Your task to perform on an android device: turn on location history Image 0: 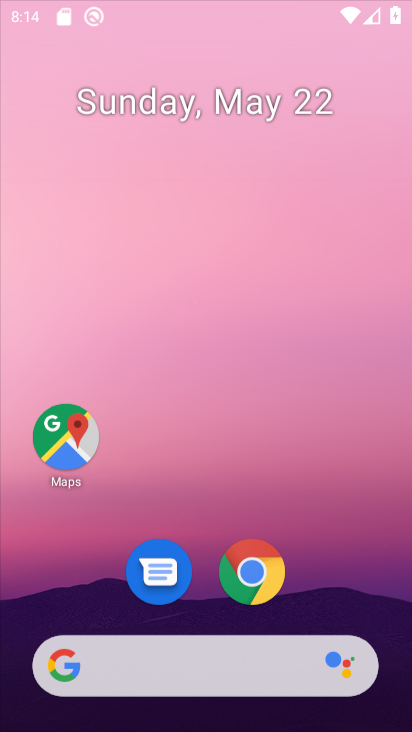
Step 0: click (262, 92)
Your task to perform on an android device: turn on location history Image 1: 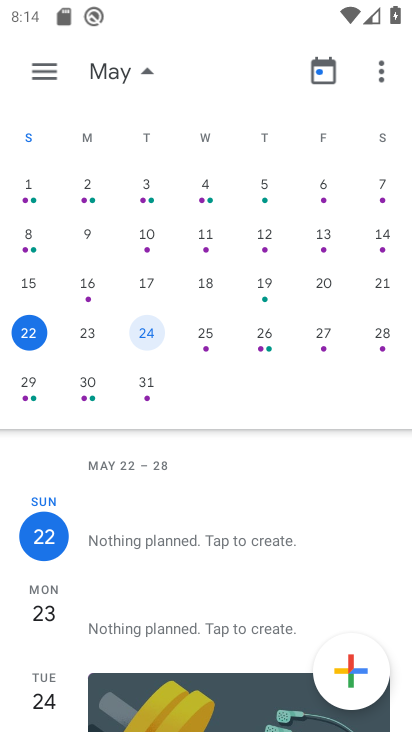
Step 1: drag from (195, 625) to (246, 140)
Your task to perform on an android device: turn on location history Image 2: 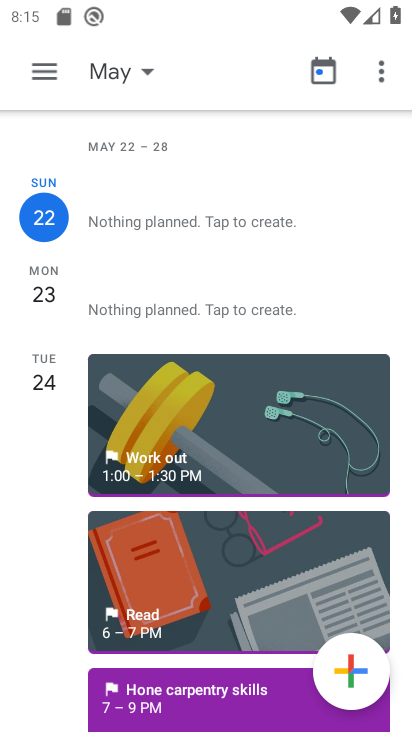
Step 2: press home button
Your task to perform on an android device: turn on location history Image 3: 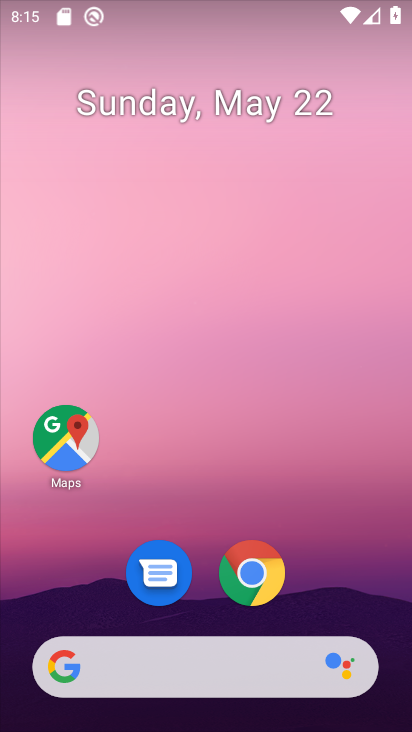
Step 3: drag from (211, 607) to (232, 209)
Your task to perform on an android device: turn on location history Image 4: 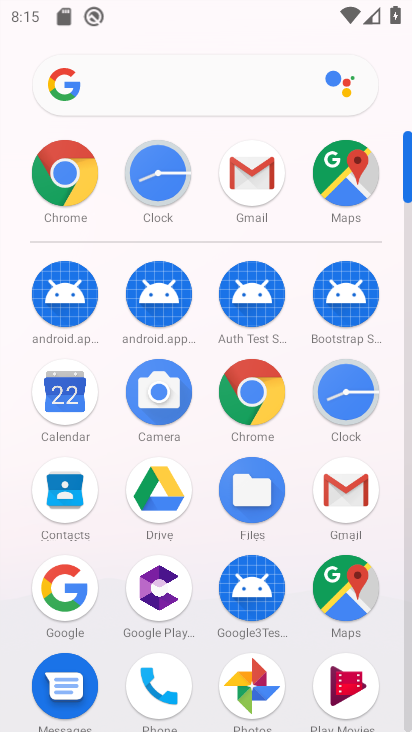
Step 4: drag from (200, 658) to (193, 234)
Your task to perform on an android device: turn on location history Image 5: 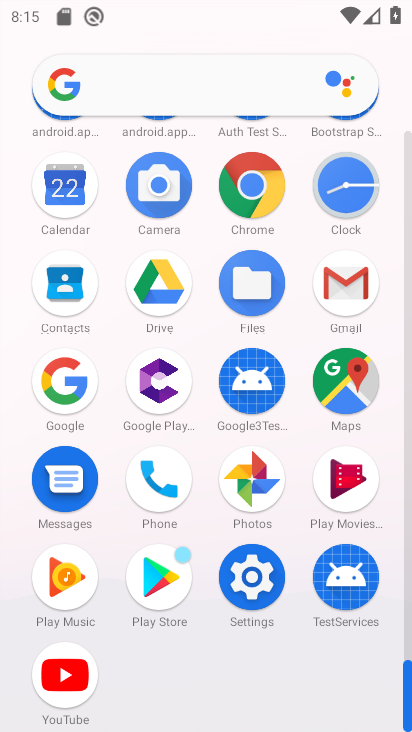
Step 5: click (242, 583)
Your task to perform on an android device: turn on location history Image 6: 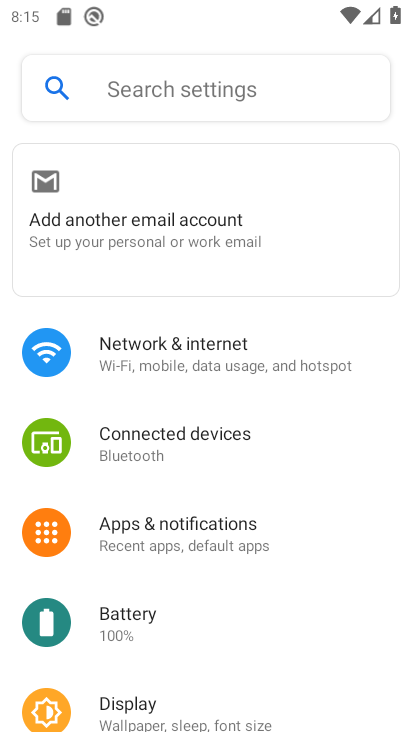
Step 6: drag from (249, 662) to (317, 24)
Your task to perform on an android device: turn on location history Image 7: 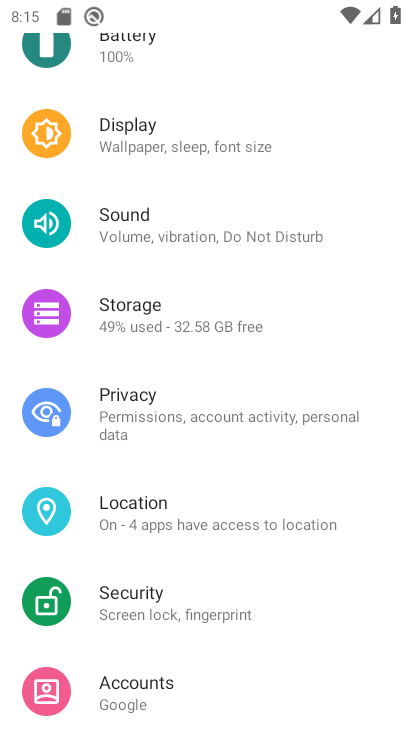
Step 7: click (138, 511)
Your task to perform on an android device: turn on location history Image 8: 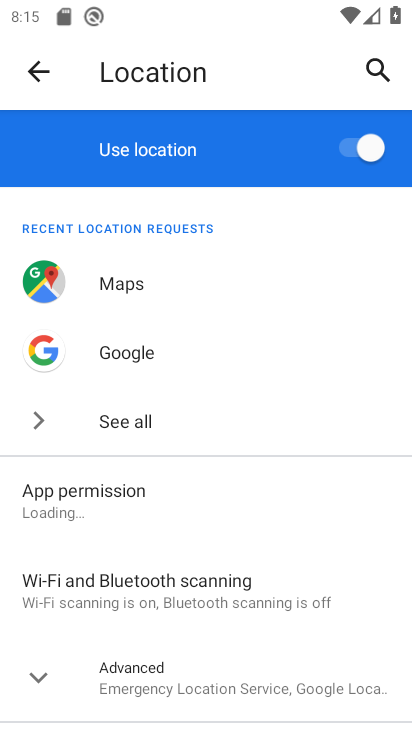
Step 8: task complete